Your task to perform on an android device: install app "Expedia: Hotels, Flights & Car" Image 0: 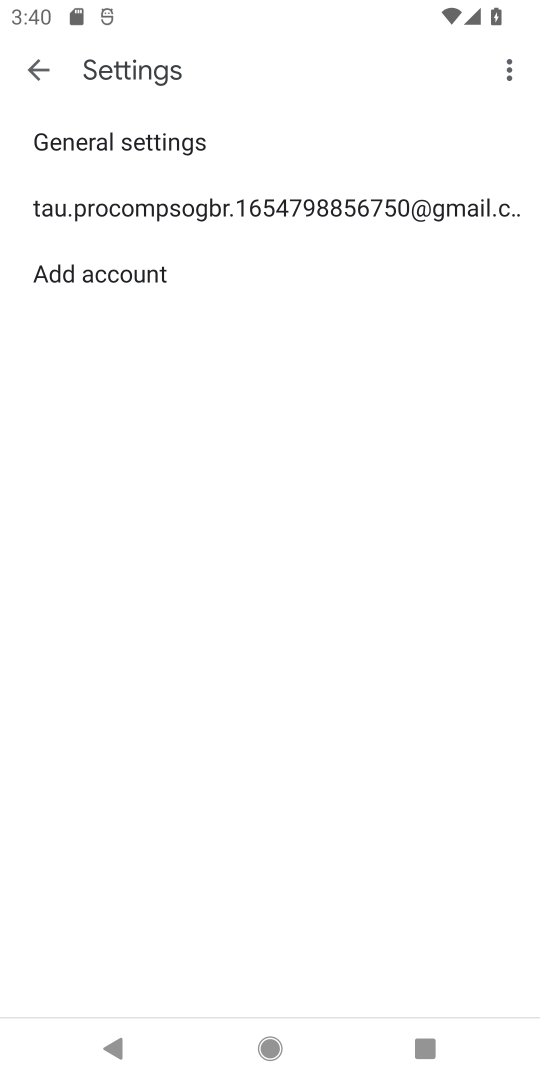
Step 0: press home button
Your task to perform on an android device: install app "Expedia: Hotels, Flights & Car" Image 1: 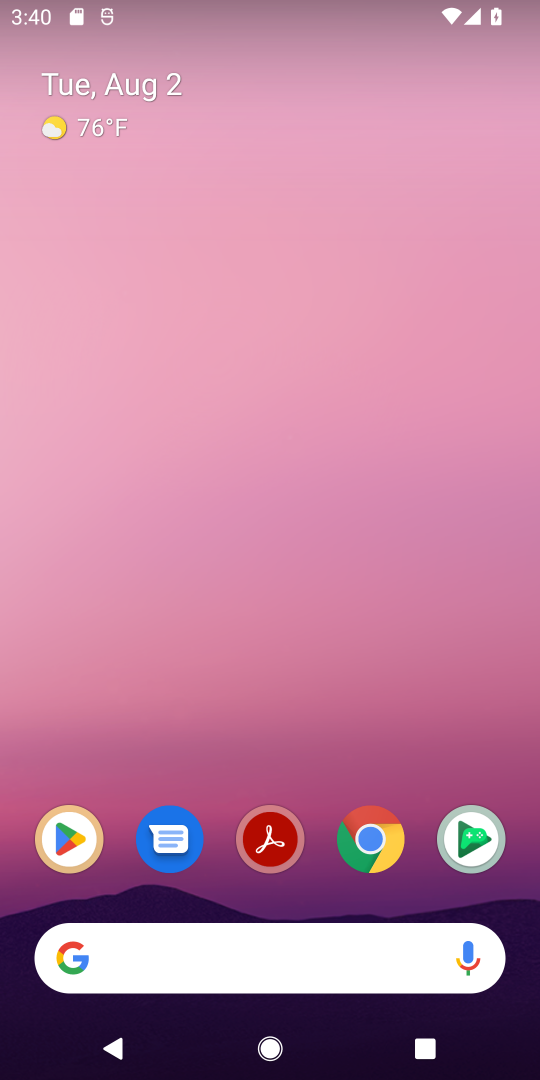
Step 1: click (72, 824)
Your task to perform on an android device: install app "Expedia: Hotels, Flights & Car" Image 2: 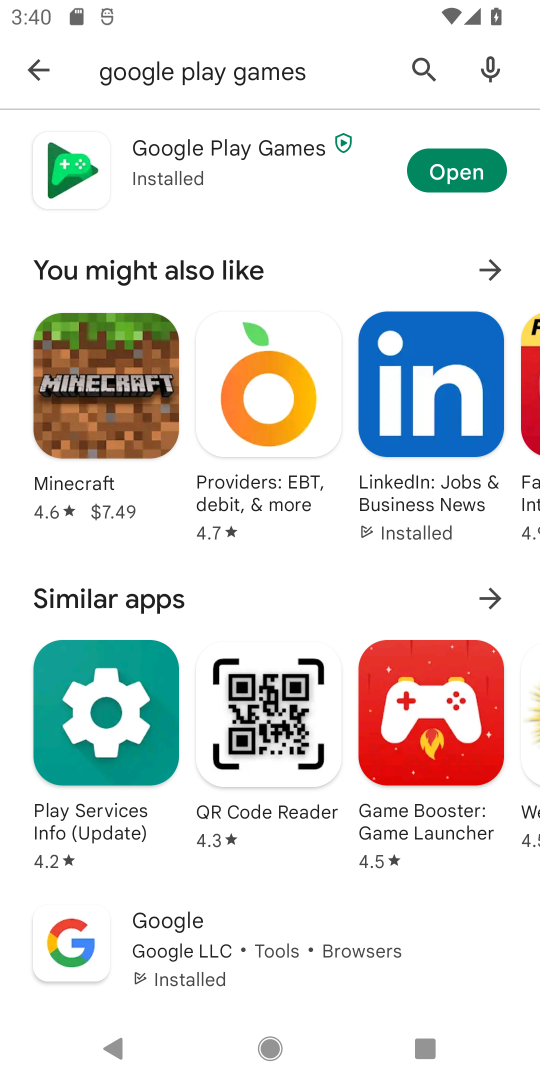
Step 2: click (425, 78)
Your task to perform on an android device: install app "Expedia: Hotels, Flights & Car" Image 3: 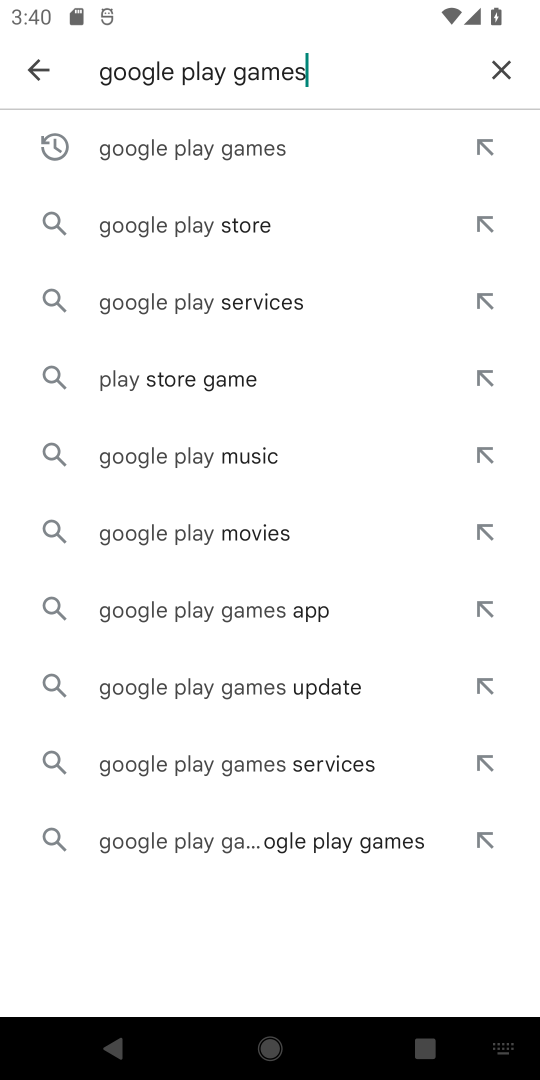
Step 3: click (492, 70)
Your task to perform on an android device: install app "Expedia: Hotels, Flights & Car" Image 4: 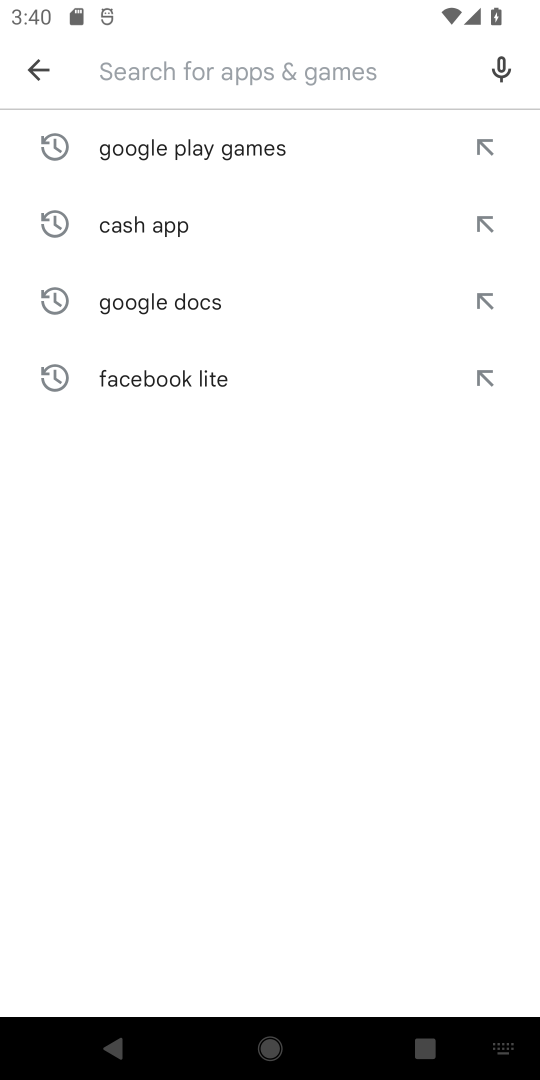
Step 4: type "expedia"
Your task to perform on an android device: install app "Expedia: Hotels, Flights & Car" Image 5: 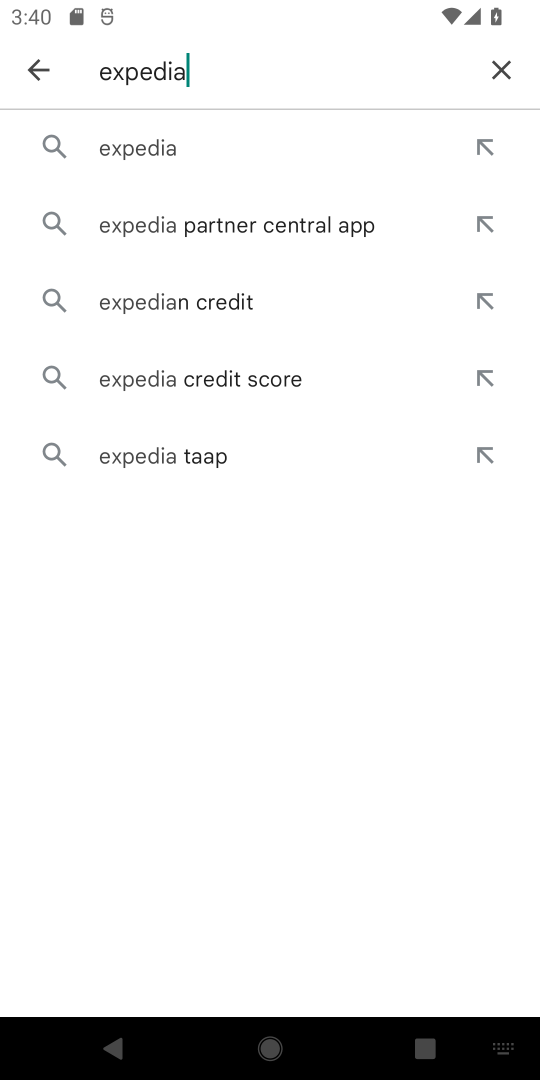
Step 5: click (242, 155)
Your task to perform on an android device: install app "Expedia: Hotels, Flights & Car" Image 6: 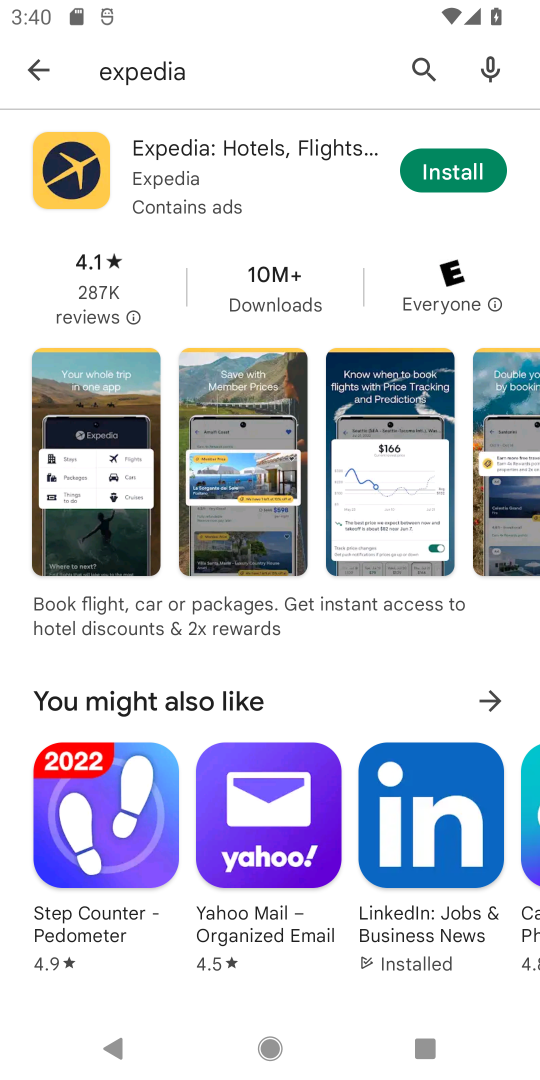
Step 6: click (429, 161)
Your task to perform on an android device: install app "Expedia: Hotels, Flights & Car" Image 7: 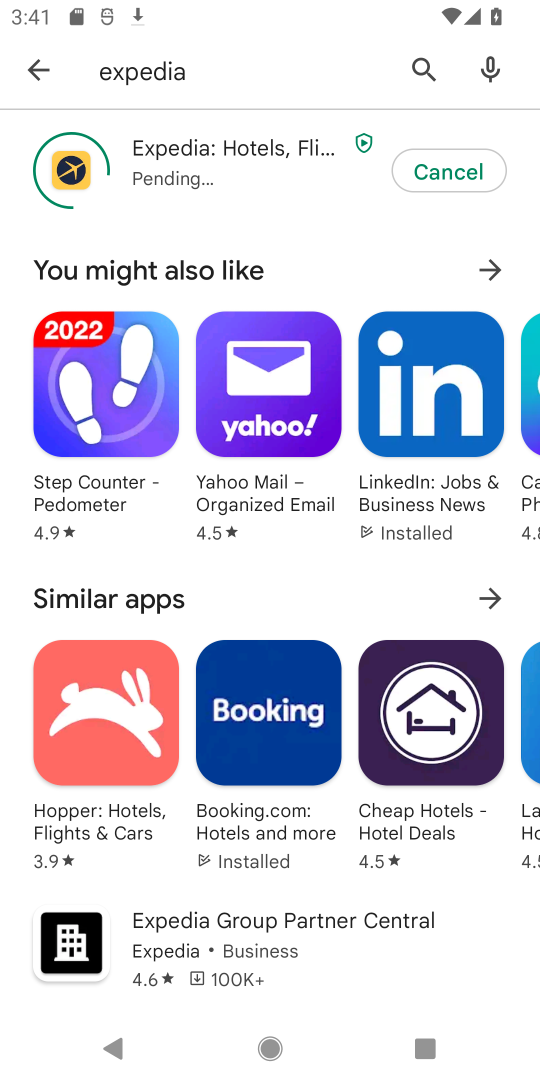
Step 7: task complete